Your task to perform on an android device: Open privacy settings Image 0: 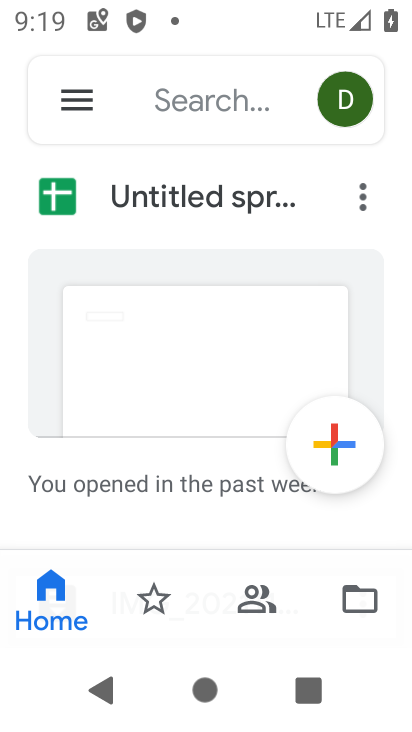
Step 0: press home button
Your task to perform on an android device: Open privacy settings Image 1: 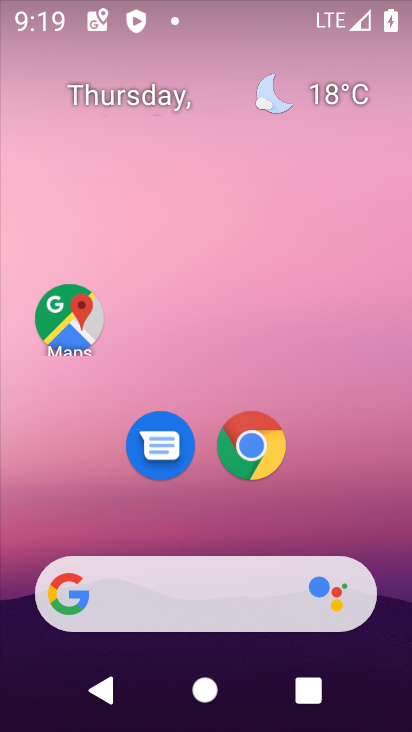
Step 1: drag from (406, 606) to (352, 197)
Your task to perform on an android device: Open privacy settings Image 2: 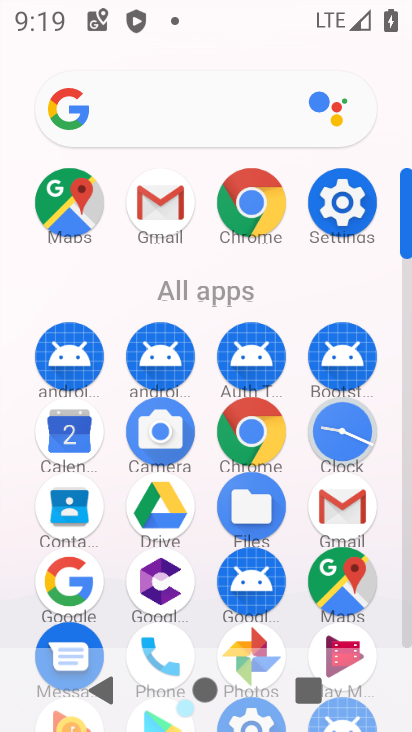
Step 2: click (354, 211)
Your task to perform on an android device: Open privacy settings Image 3: 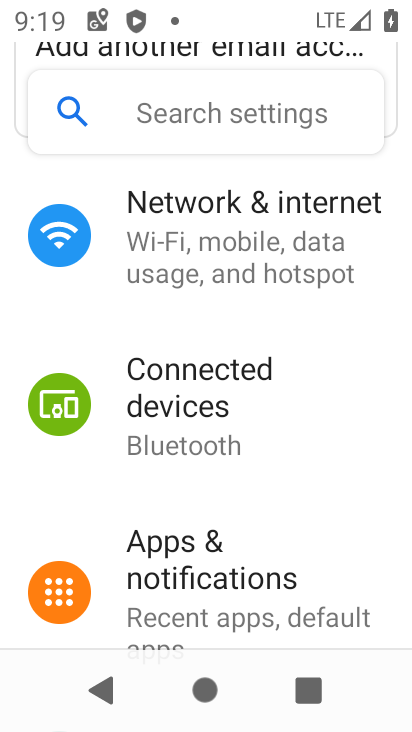
Step 3: drag from (300, 554) to (258, 252)
Your task to perform on an android device: Open privacy settings Image 4: 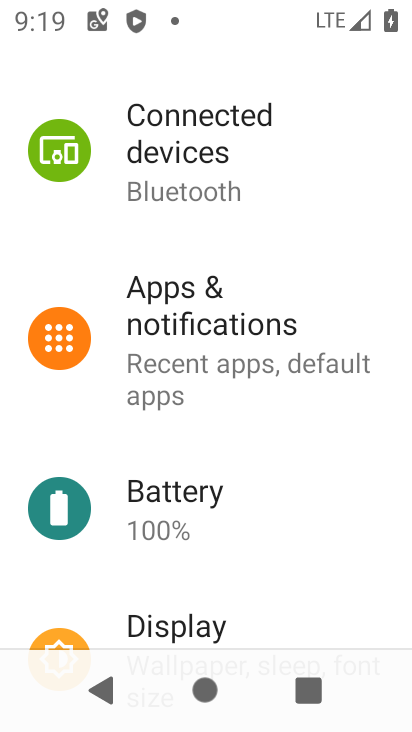
Step 4: drag from (326, 568) to (268, 229)
Your task to perform on an android device: Open privacy settings Image 5: 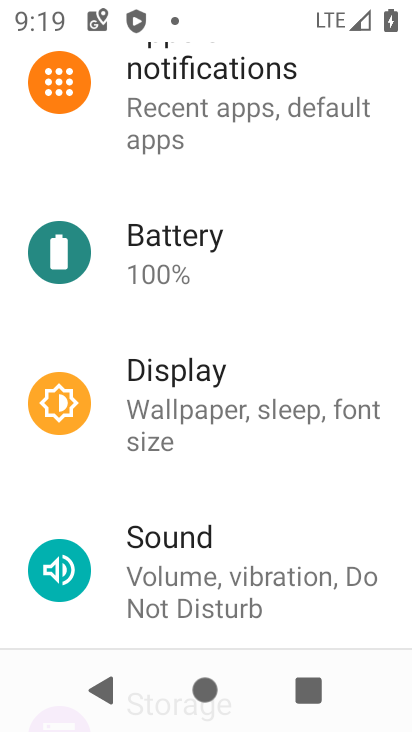
Step 5: drag from (287, 508) to (265, 238)
Your task to perform on an android device: Open privacy settings Image 6: 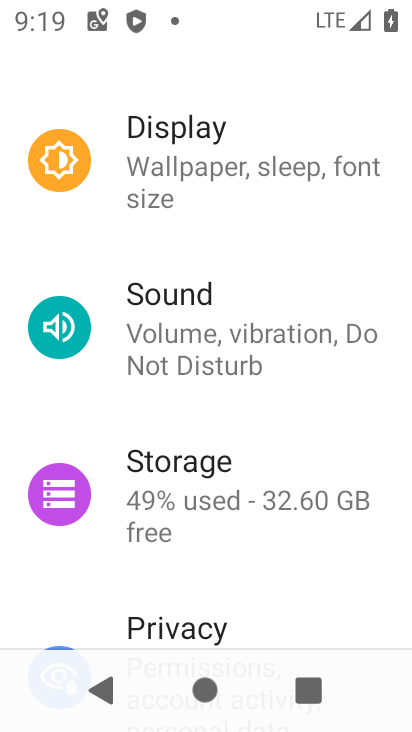
Step 6: drag from (325, 550) to (285, 324)
Your task to perform on an android device: Open privacy settings Image 7: 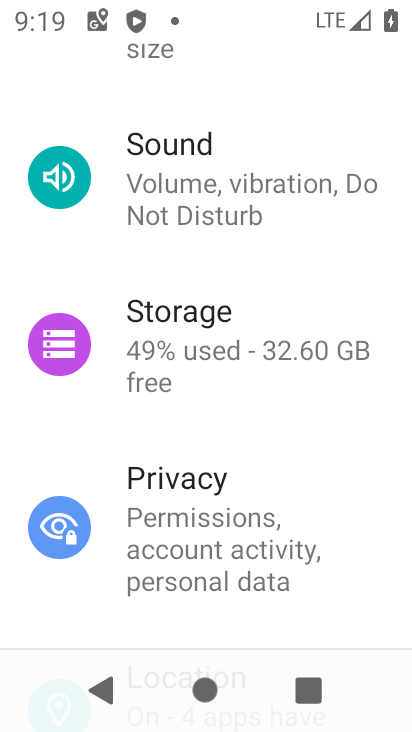
Step 7: click (301, 519)
Your task to perform on an android device: Open privacy settings Image 8: 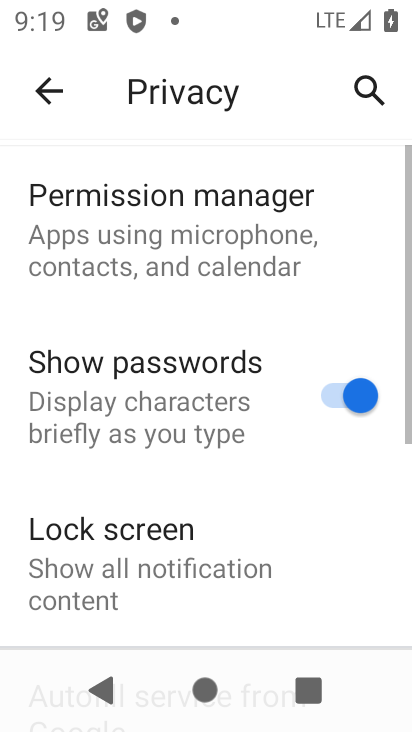
Step 8: task complete